Your task to perform on an android device: star an email in the gmail app Image 0: 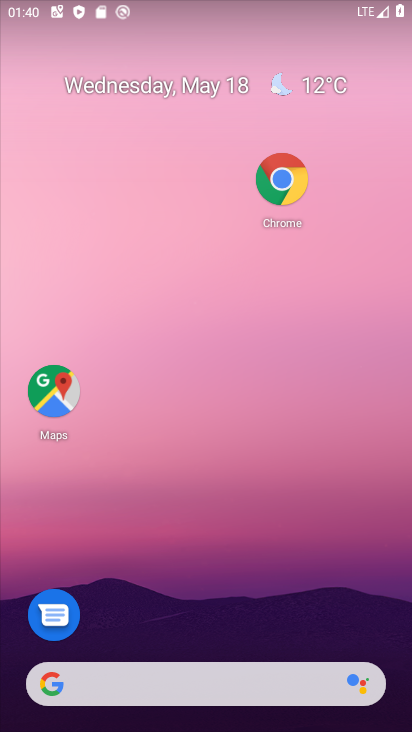
Step 0: press home button
Your task to perform on an android device: star an email in the gmail app Image 1: 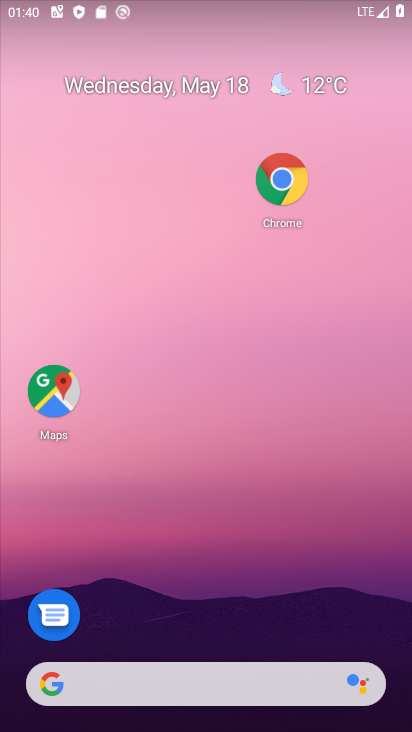
Step 1: drag from (188, 678) to (289, 102)
Your task to perform on an android device: star an email in the gmail app Image 2: 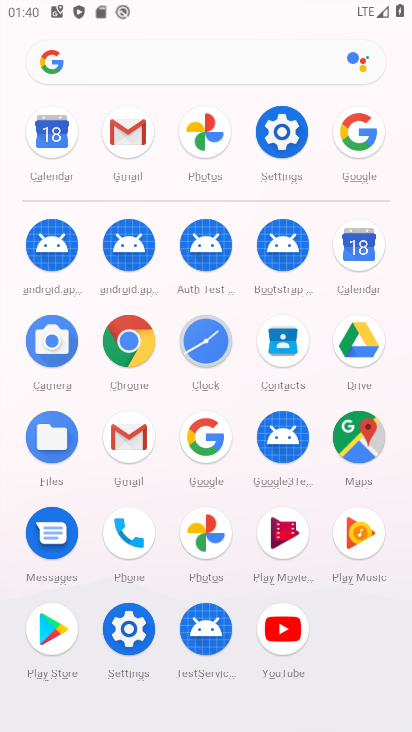
Step 2: click (130, 131)
Your task to perform on an android device: star an email in the gmail app Image 3: 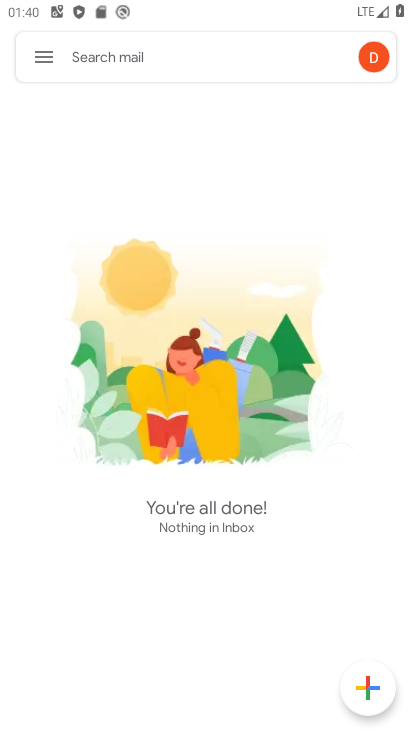
Step 3: task complete